Your task to perform on an android device: Open calendar and show me the first week of next month Image 0: 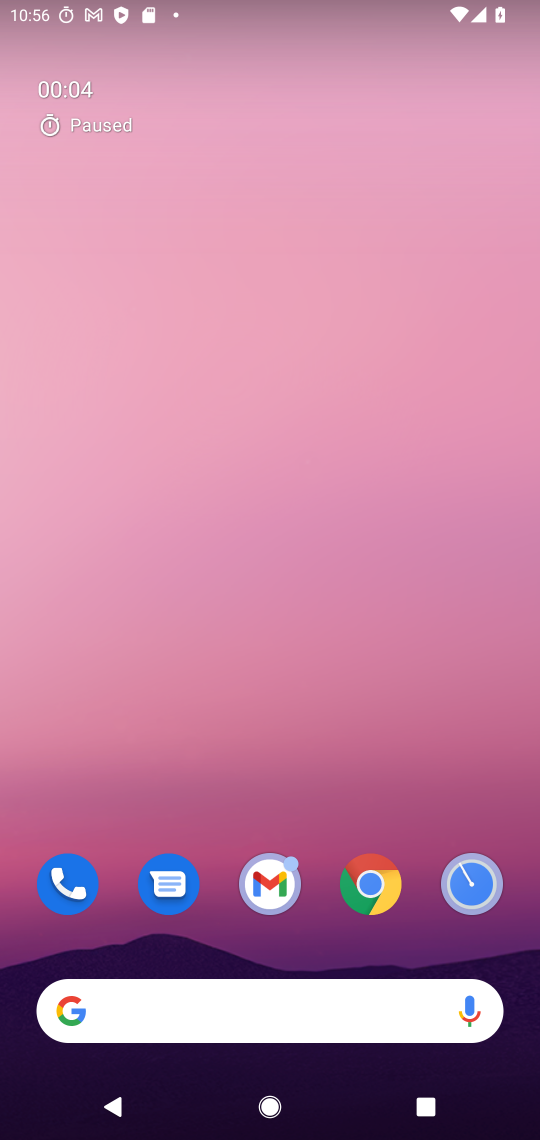
Step 0: click (255, 953)
Your task to perform on an android device: Open calendar and show me the first week of next month Image 1: 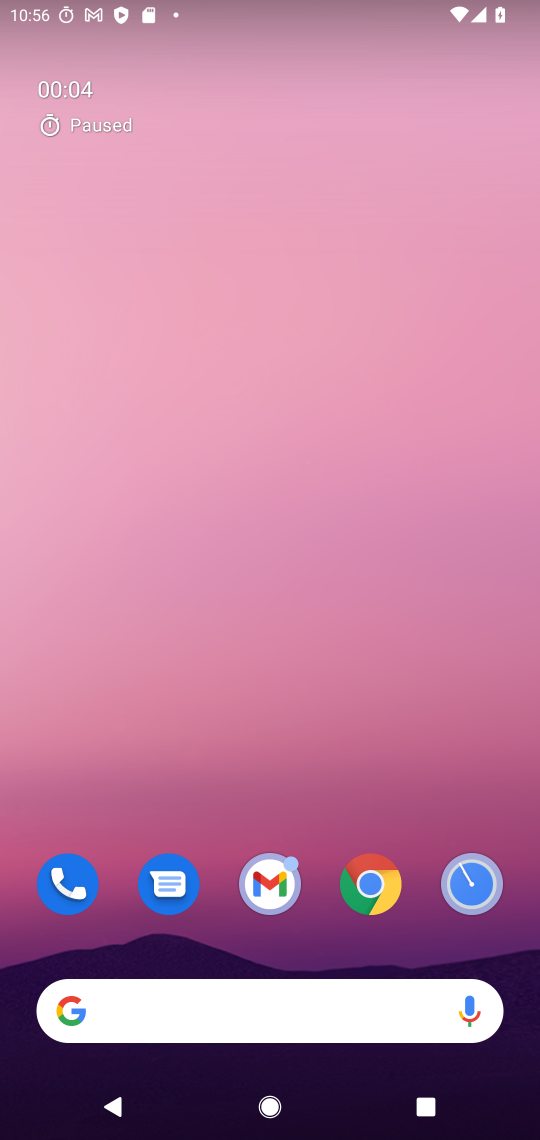
Step 1: click (286, 947)
Your task to perform on an android device: Open calendar and show me the first week of next month Image 2: 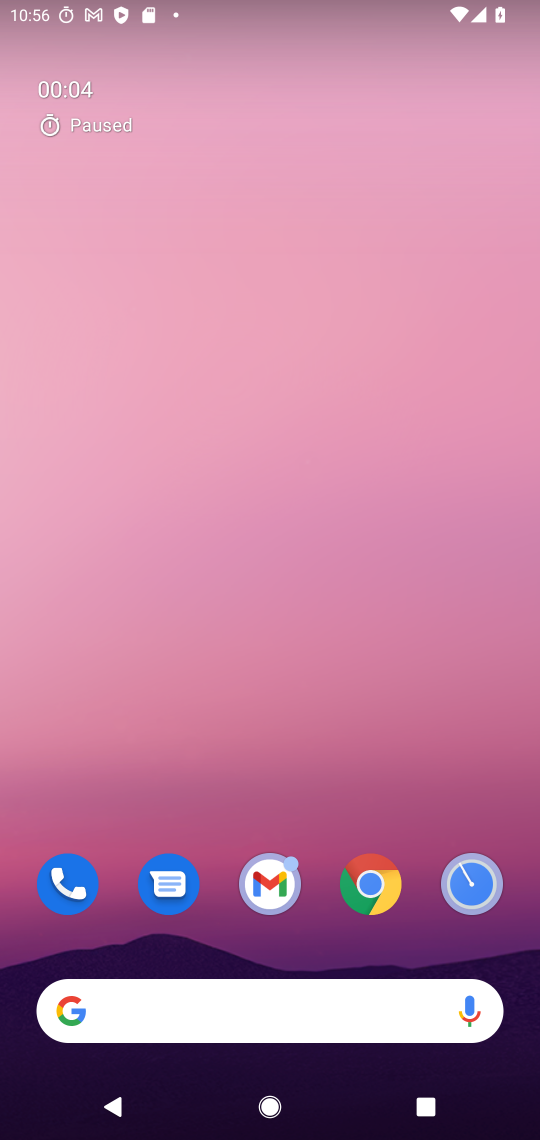
Step 2: click (281, 936)
Your task to perform on an android device: Open calendar and show me the first week of next month Image 3: 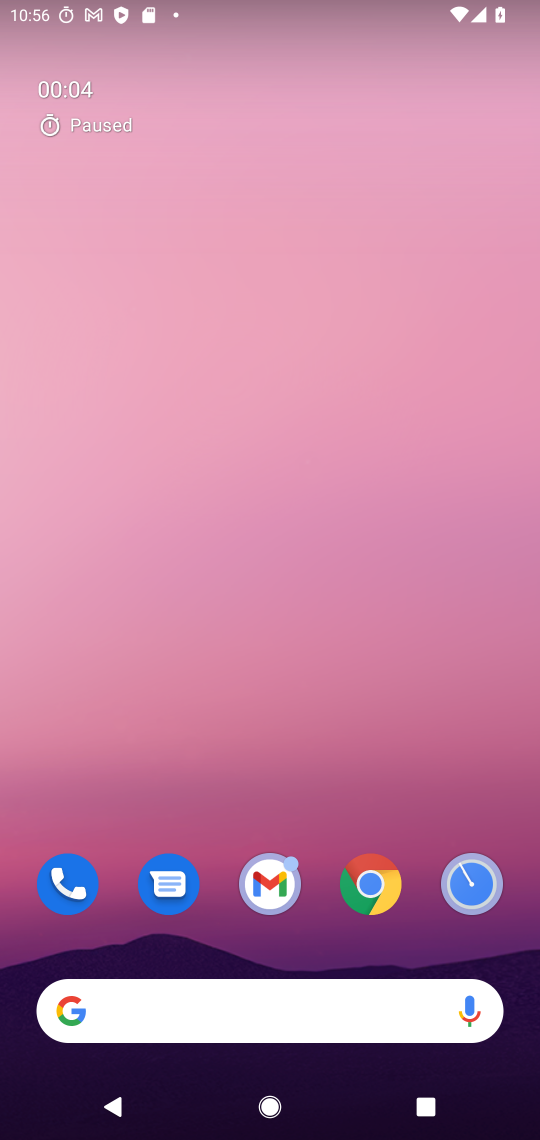
Step 3: click (317, 921)
Your task to perform on an android device: Open calendar and show me the first week of next month Image 4: 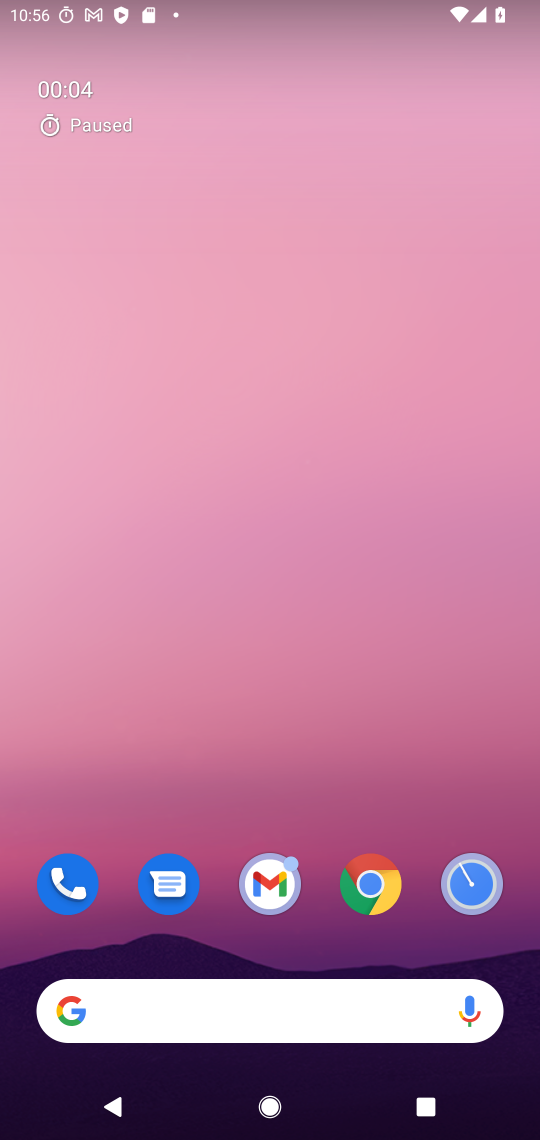
Step 4: click (233, 932)
Your task to perform on an android device: Open calendar and show me the first week of next month Image 5: 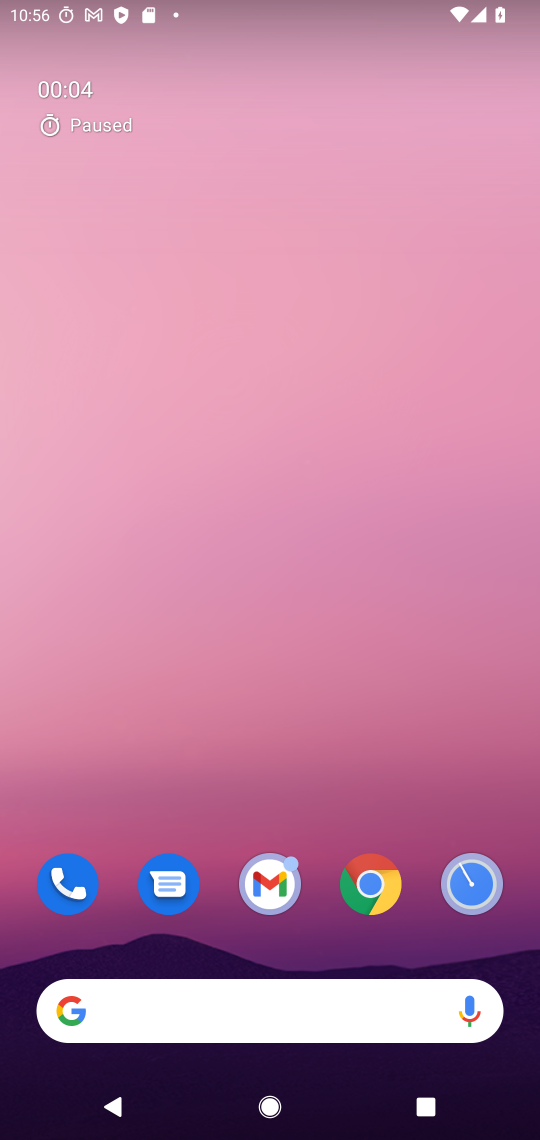
Step 5: drag from (212, 851) to (212, 17)
Your task to perform on an android device: Open calendar and show me the first week of next month Image 6: 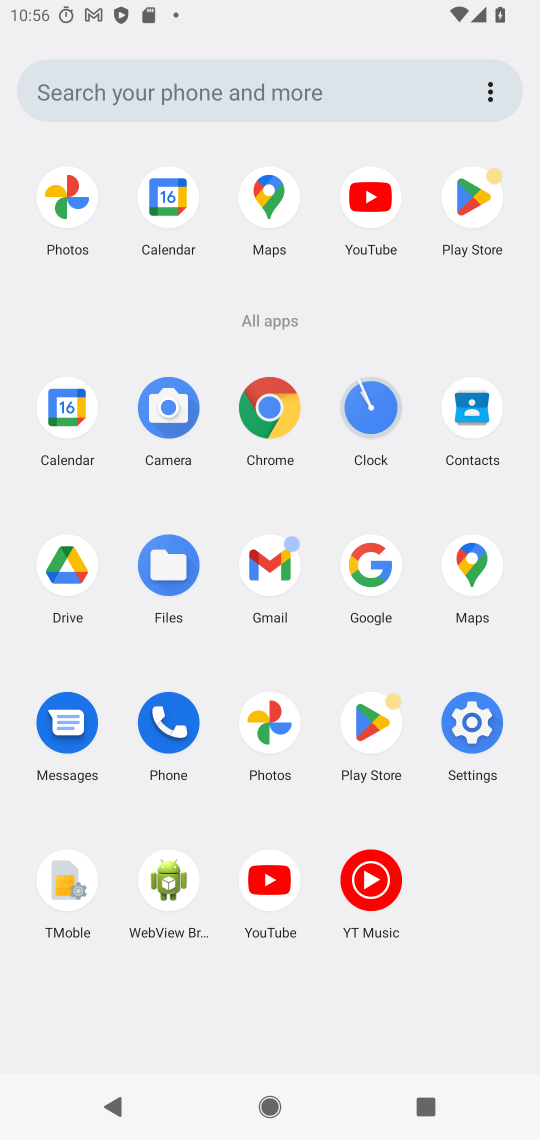
Step 6: click (66, 415)
Your task to perform on an android device: Open calendar and show me the first week of next month Image 7: 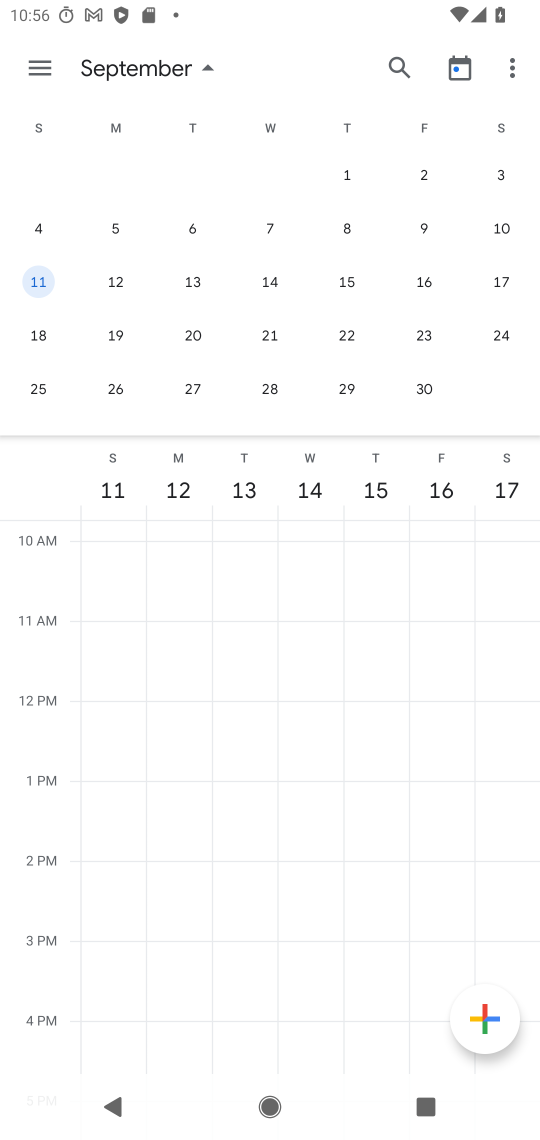
Step 7: click (350, 178)
Your task to perform on an android device: Open calendar and show me the first week of next month Image 8: 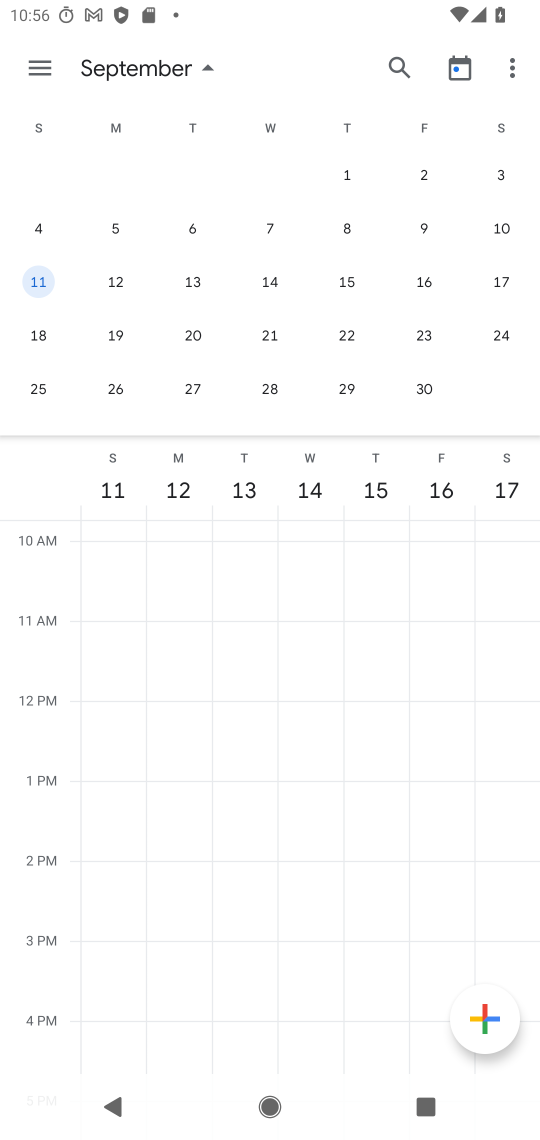
Step 8: click (350, 178)
Your task to perform on an android device: Open calendar and show me the first week of next month Image 9: 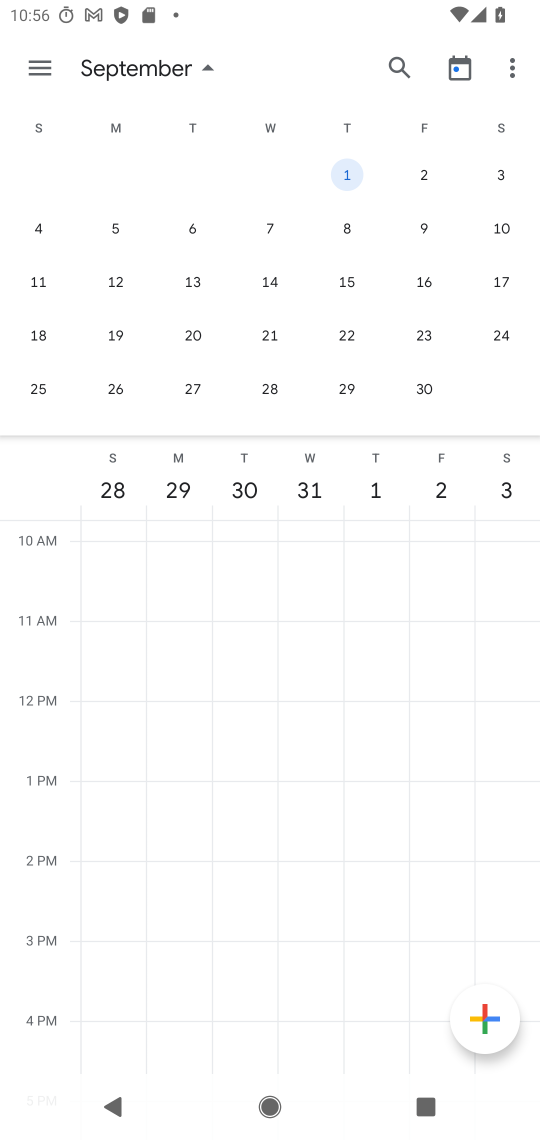
Step 9: task complete